Your task to perform on an android device: Open sound settings Image 0: 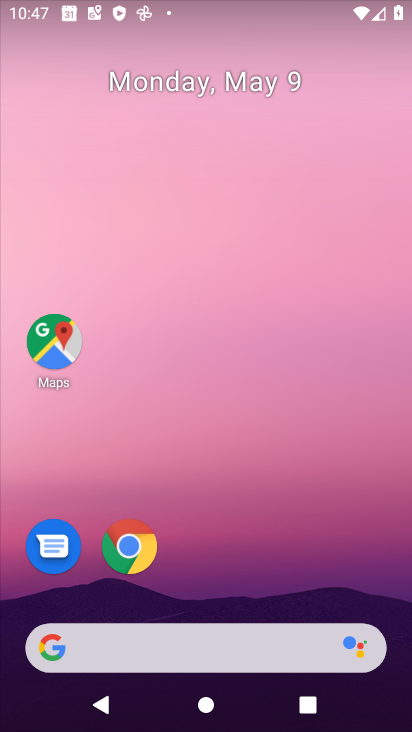
Step 0: drag from (259, 696) to (264, 180)
Your task to perform on an android device: Open sound settings Image 1: 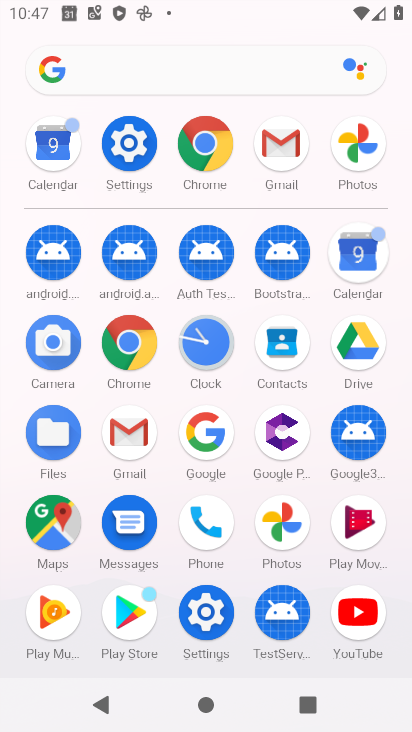
Step 1: click (132, 166)
Your task to perform on an android device: Open sound settings Image 2: 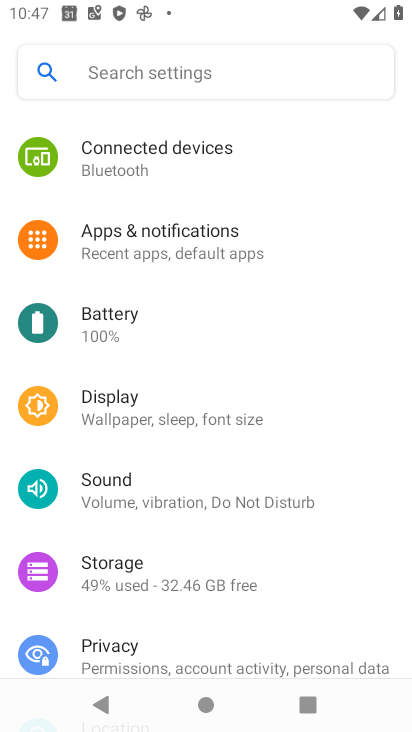
Step 2: click (146, 497)
Your task to perform on an android device: Open sound settings Image 3: 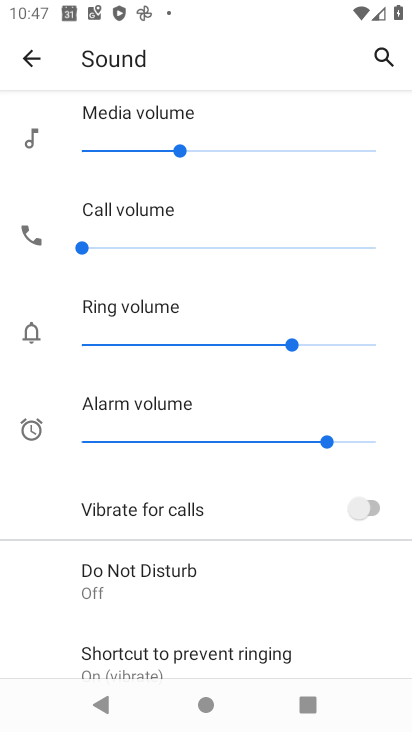
Step 3: task complete